Your task to perform on an android device: turn off sleep mode Image 0: 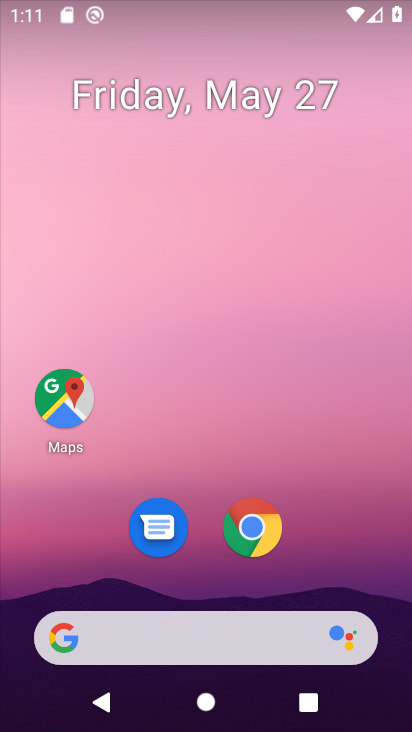
Step 0: drag from (372, 603) to (328, 480)
Your task to perform on an android device: turn off sleep mode Image 1: 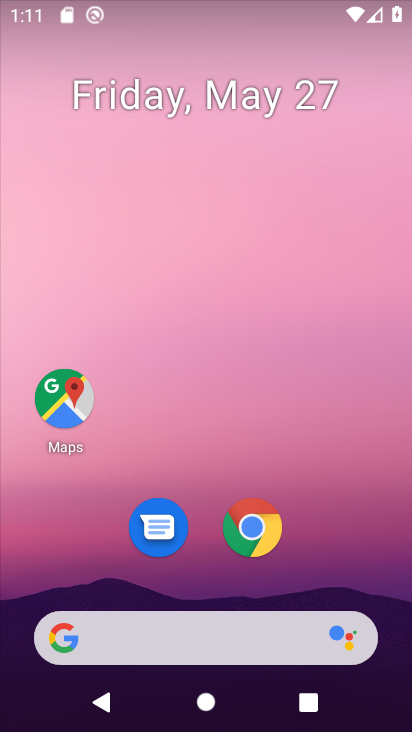
Step 1: drag from (308, 16) to (310, 646)
Your task to perform on an android device: turn off sleep mode Image 2: 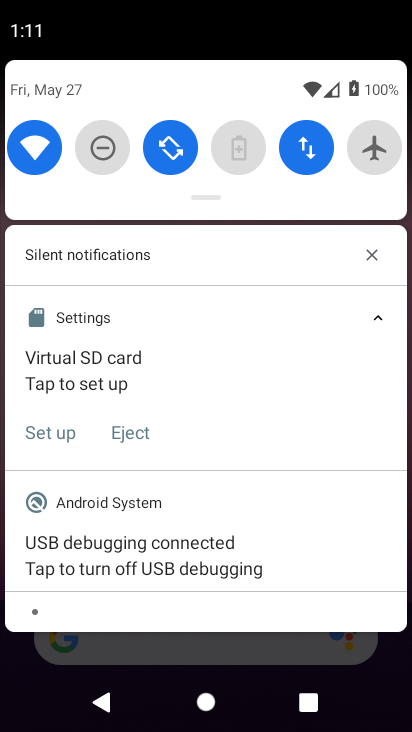
Step 2: drag from (261, 184) to (336, 607)
Your task to perform on an android device: turn off sleep mode Image 3: 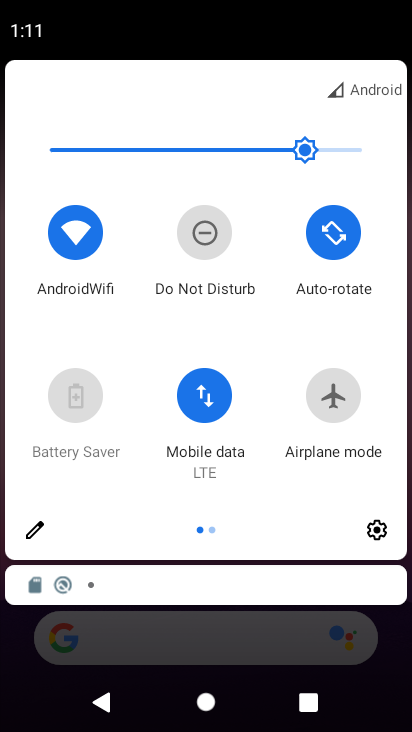
Step 3: click (39, 529)
Your task to perform on an android device: turn off sleep mode Image 4: 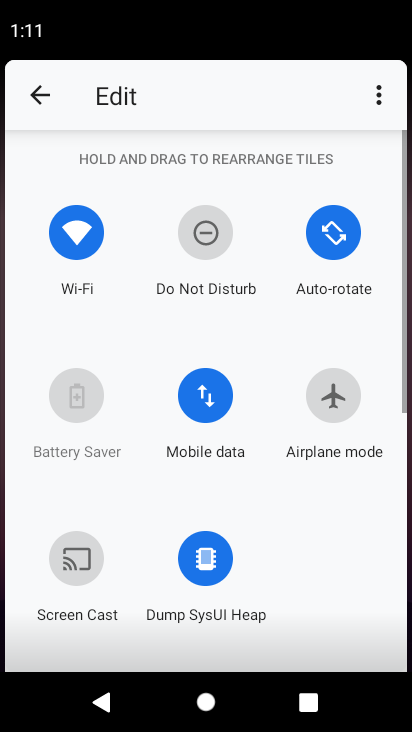
Step 4: task complete